Your task to perform on an android device: toggle show notifications on the lock screen Image 0: 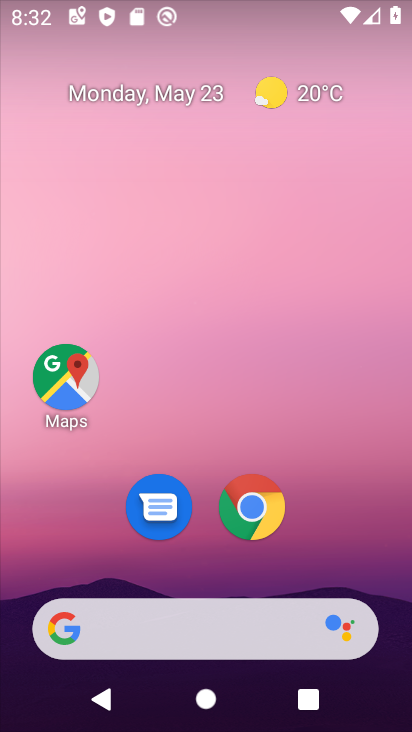
Step 0: drag from (364, 588) to (325, 3)
Your task to perform on an android device: toggle show notifications on the lock screen Image 1: 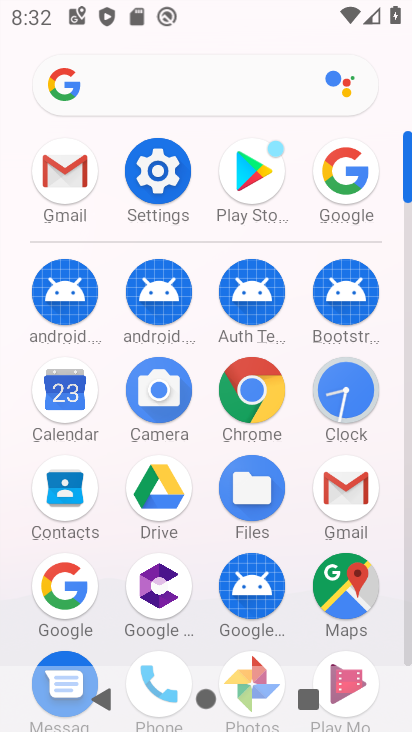
Step 1: click (156, 172)
Your task to perform on an android device: toggle show notifications on the lock screen Image 2: 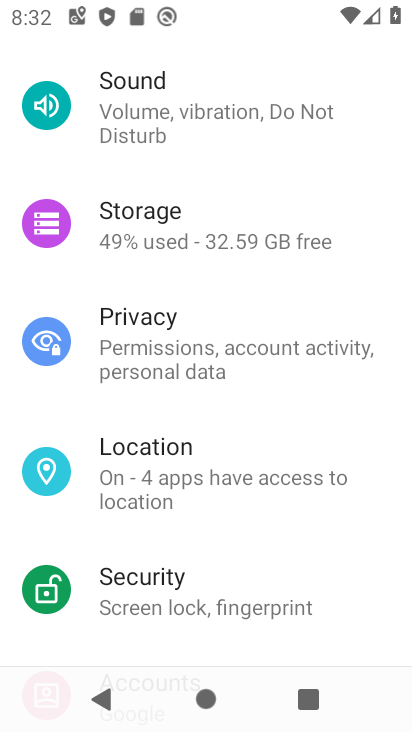
Step 2: drag from (276, 197) to (291, 532)
Your task to perform on an android device: toggle show notifications on the lock screen Image 3: 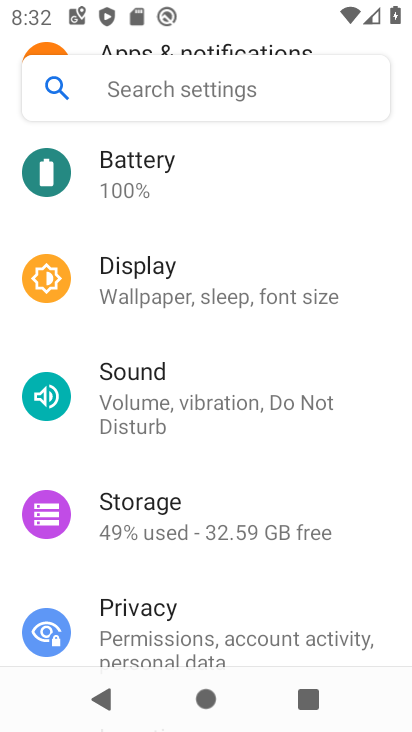
Step 3: drag from (272, 261) to (296, 536)
Your task to perform on an android device: toggle show notifications on the lock screen Image 4: 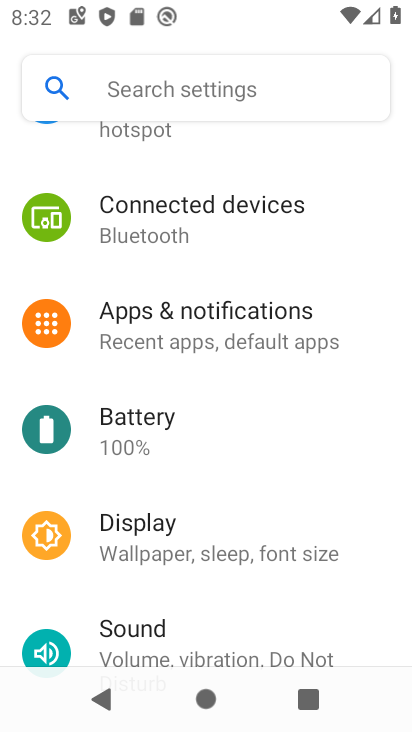
Step 4: click (215, 340)
Your task to perform on an android device: toggle show notifications on the lock screen Image 5: 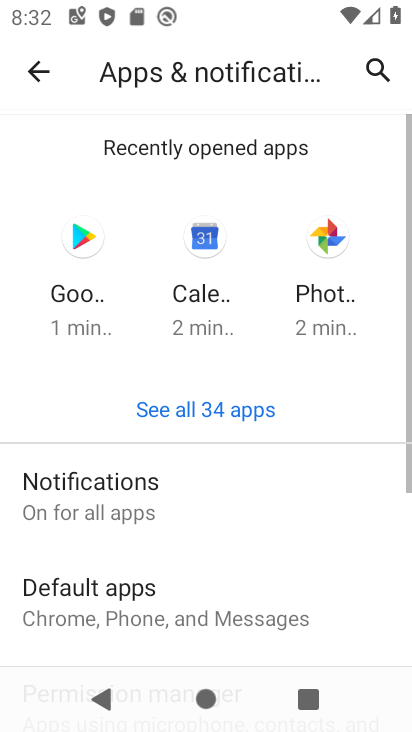
Step 5: click (77, 483)
Your task to perform on an android device: toggle show notifications on the lock screen Image 6: 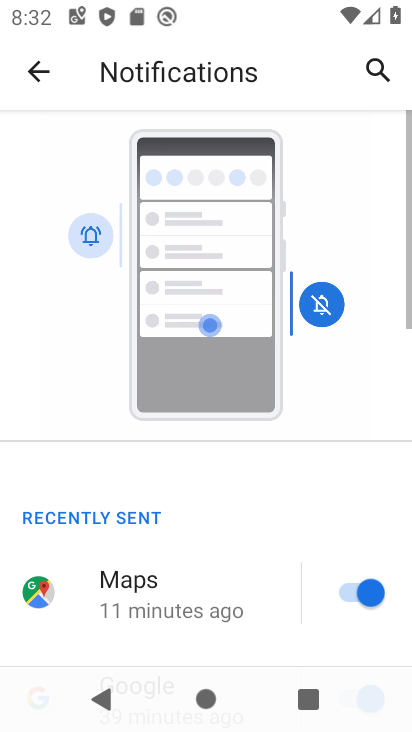
Step 6: drag from (226, 550) to (224, 48)
Your task to perform on an android device: toggle show notifications on the lock screen Image 7: 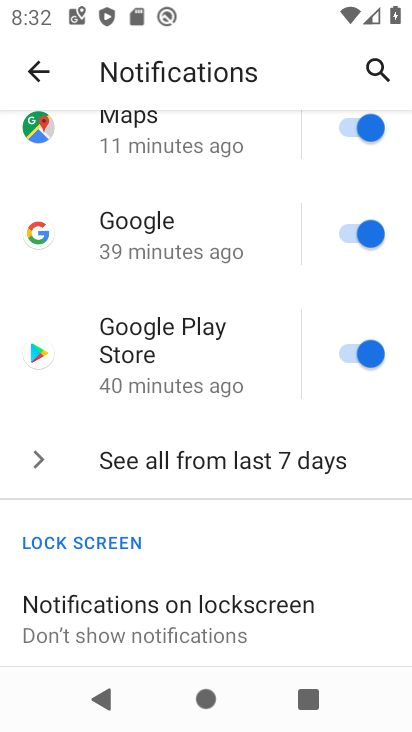
Step 7: drag from (194, 548) to (211, 160)
Your task to perform on an android device: toggle show notifications on the lock screen Image 8: 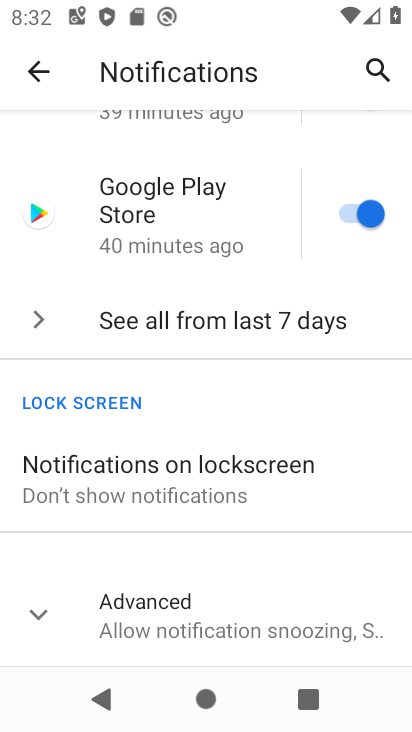
Step 8: click (88, 467)
Your task to perform on an android device: toggle show notifications on the lock screen Image 9: 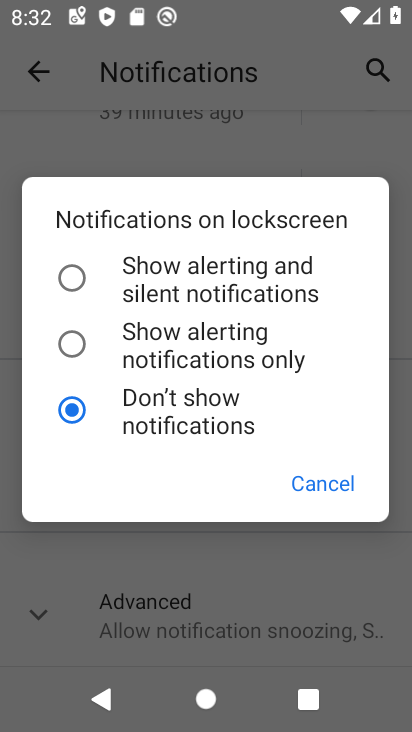
Step 9: click (57, 287)
Your task to perform on an android device: toggle show notifications on the lock screen Image 10: 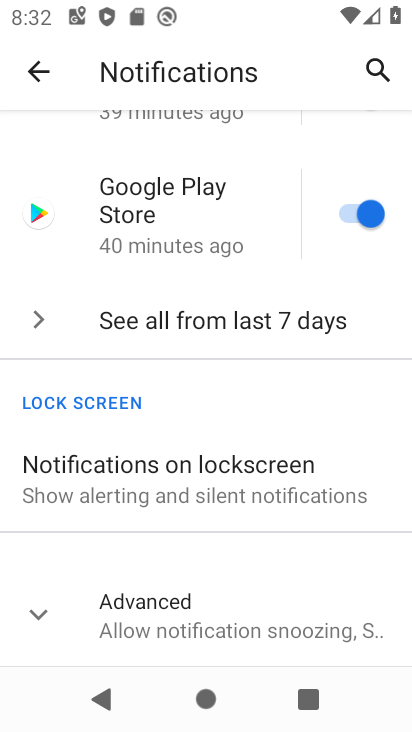
Step 10: task complete